Your task to perform on an android device: toggle wifi Image 0: 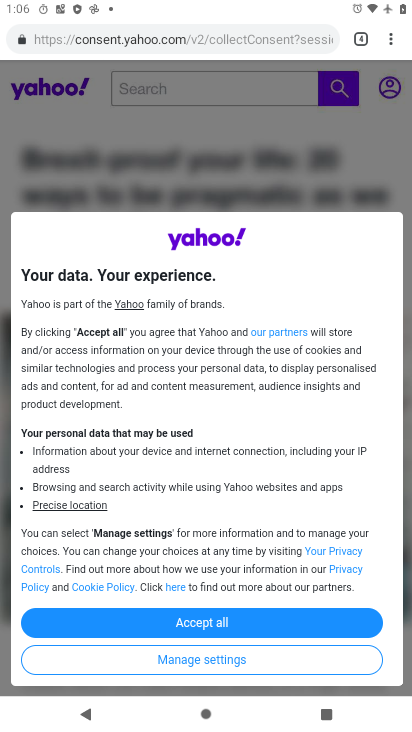
Step 0: press home button
Your task to perform on an android device: toggle wifi Image 1: 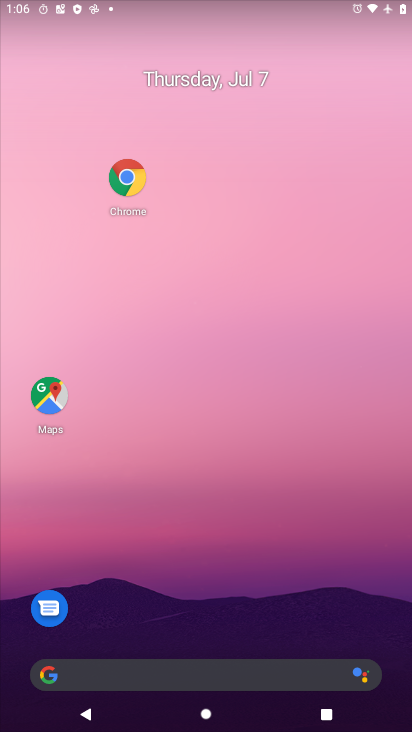
Step 1: drag from (183, 643) to (226, 313)
Your task to perform on an android device: toggle wifi Image 2: 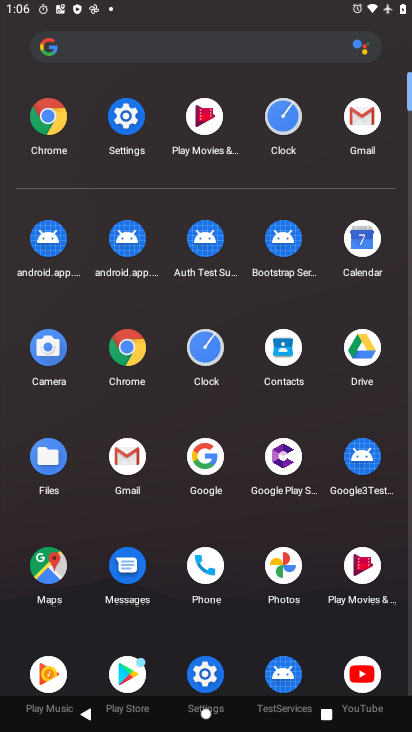
Step 2: click (133, 117)
Your task to perform on an android device: toggle wifi Image 3: 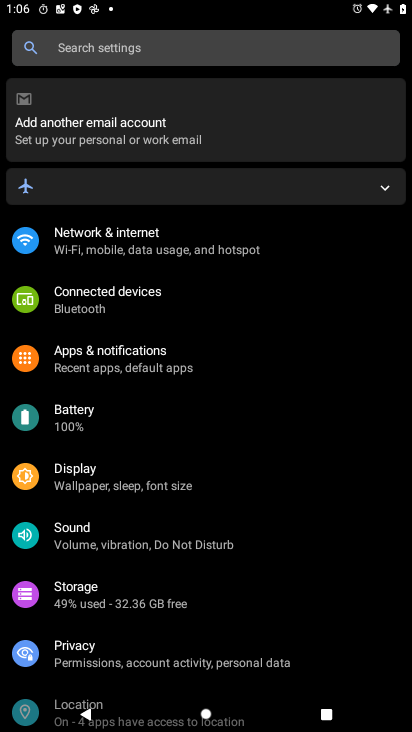
Step 3: click (131, 245)
Your task to perform on an android device: toggle wifi Image 4: 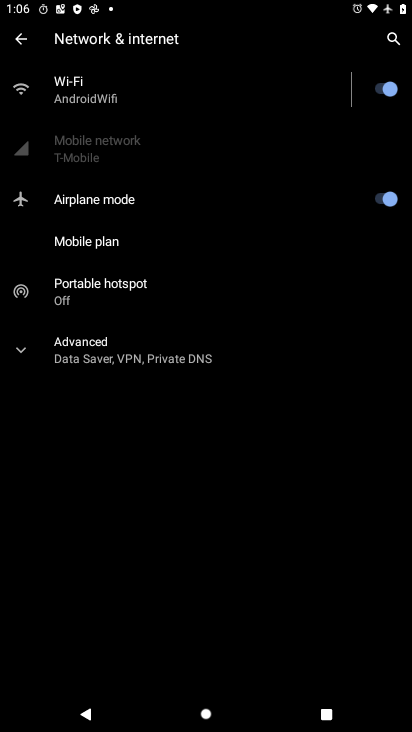
Step 4: click (385, 86)
Your task to perform on an android device: toggle wifi Image 5: 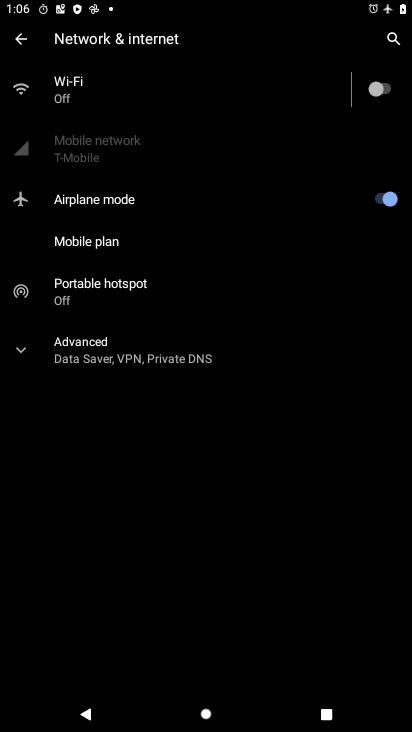
Step 5: task complete